Your task to perform on an android device: change timer sound Image 0: 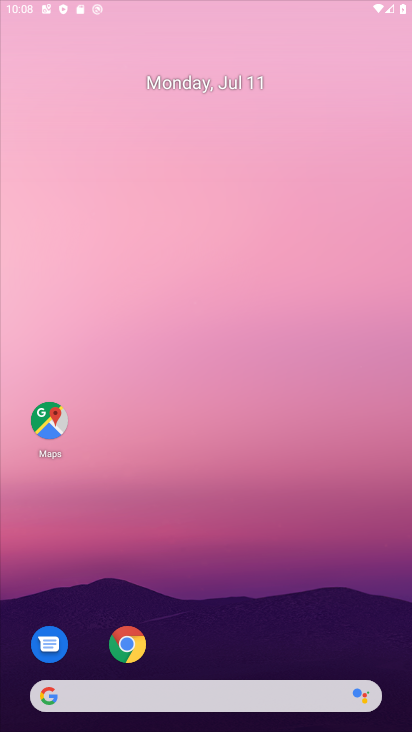
Step 0: press home button
Your task to perform on an android device: change timer sound Image 1: 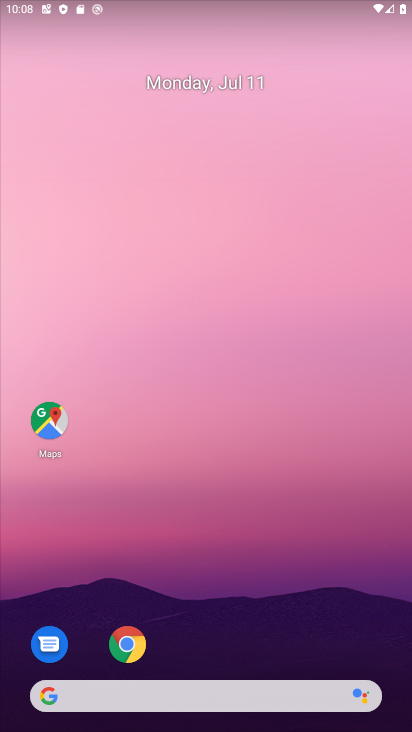
Step 1: drag from (208, 671) to (225, 175)
Your task to perform on an android device: change timer sound Image 2: 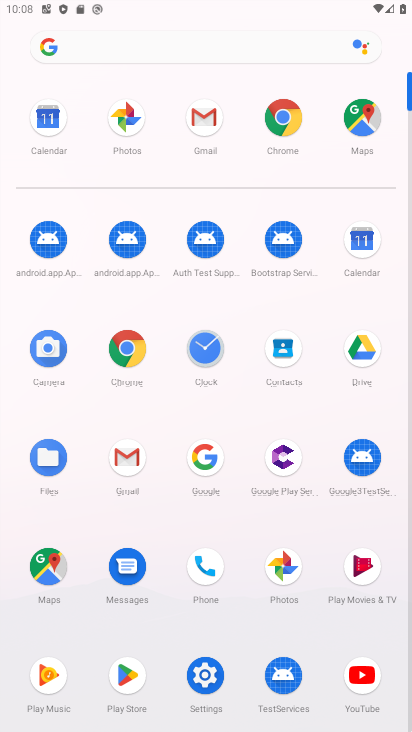
Step 2: click (204, 340)
Your task to perform on an android device: change timer sound Image 3: 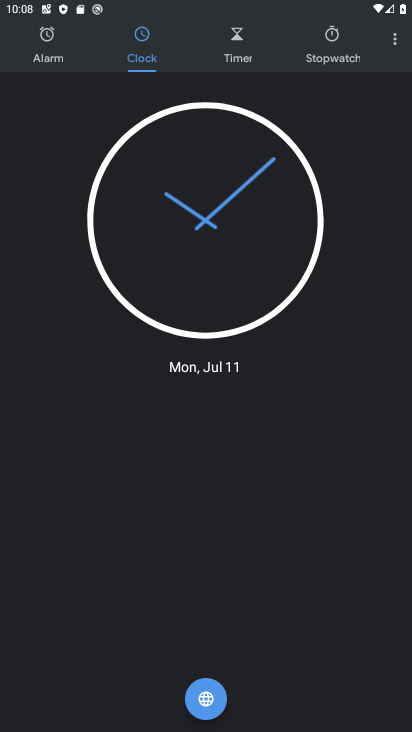
Step 3: click (394, 43)
Your task to perform on an android device: change timer sound Image 4: 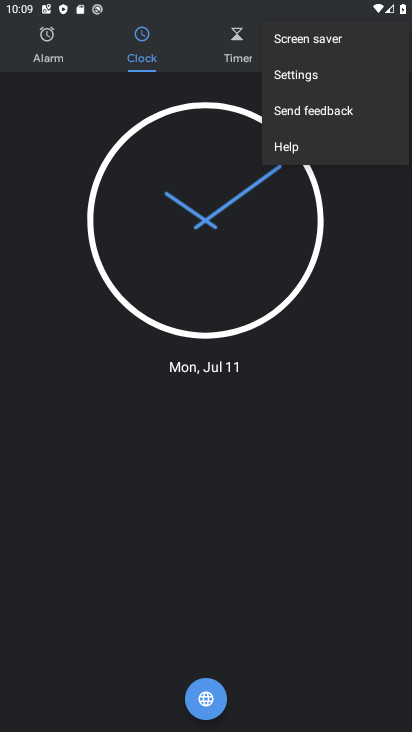
Step 4: click (334, 71)
Your task to perform on an android device: change timer sound Image 5: 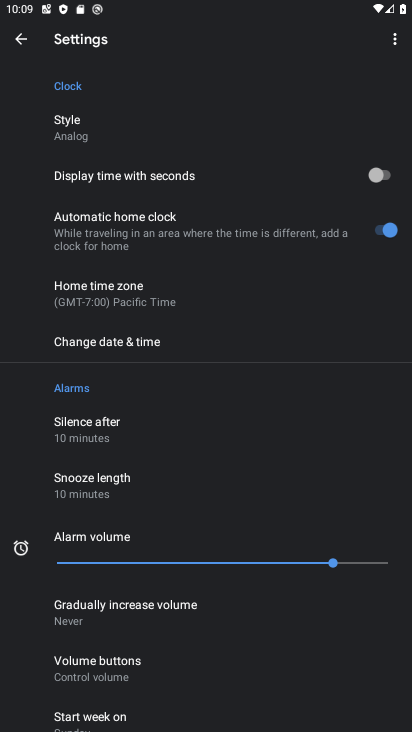
Step 5: drag from (173, 618) to (161, 344)
Your task to perform on an android device: change timer sound Image 6: 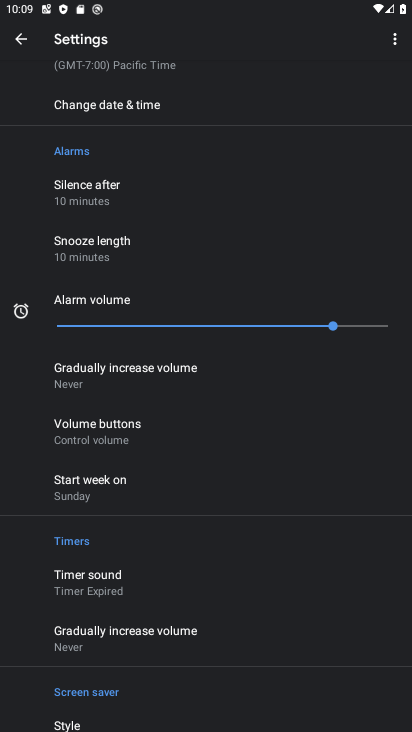
Step 6: click (137, 581)
Your task to perform on an android device: change timer sound Image 7: 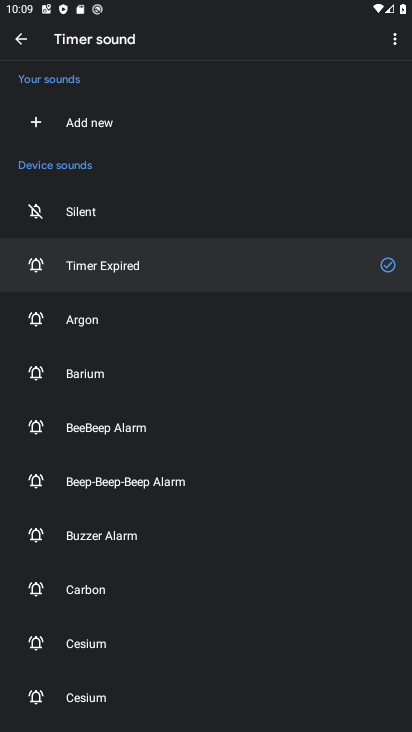
Step 7: click (117, 593)
Your task to perform on an android device: change timer sound Image 8: 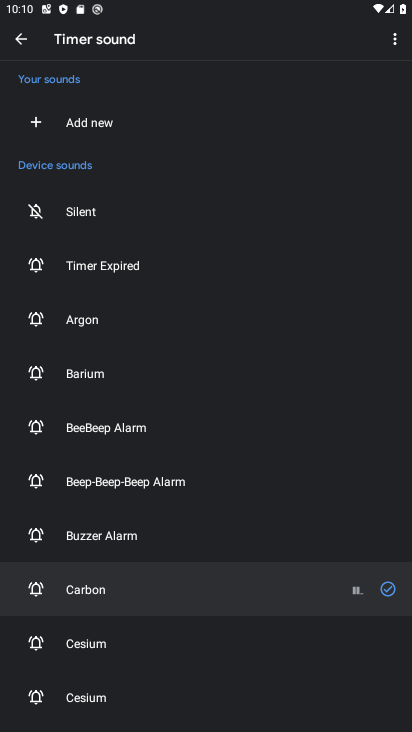
Step 8: task complete